Your task to perform on an android device: Open Google Chrome and click the shortcut for Amazon.com Image 0: 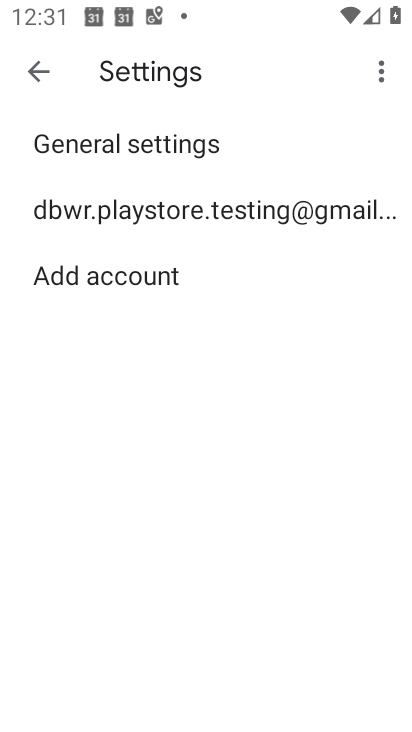
Step 0: press home button
Your task to perform on an android device: Open Google Chrome and click the shortcut for Amazon.com Image 1: 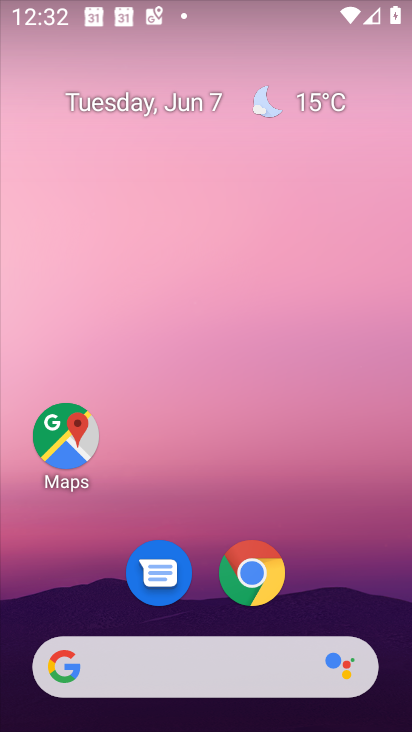
Step 1: click (317, 568)
Your task to perform on an android device: Open Google Chrome and click the shortcut for Amazon.com Image 2: 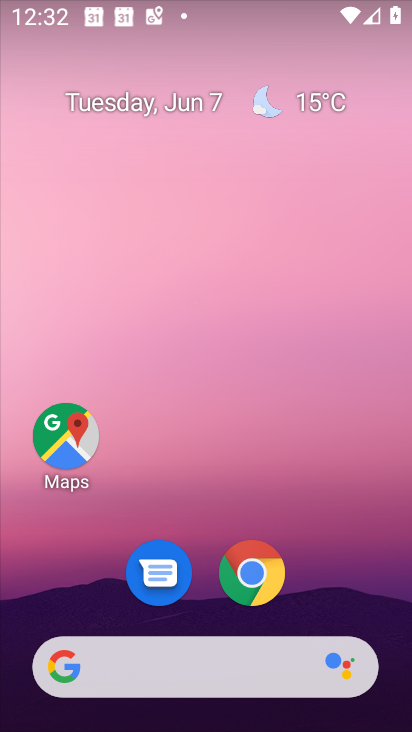
Step 2: click (265, 571)
Your task to perform on an android device: Open Google Chrome and click the shortcut for Amazon.com Image 3: 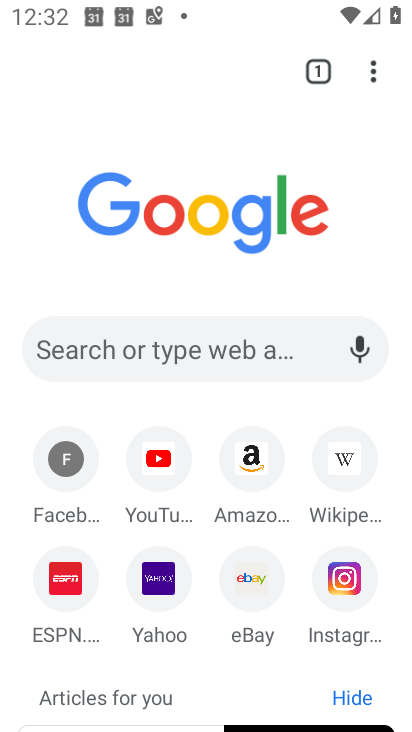
Step 3: click (247, 445)
Your task to perform on an android device: Open Google Chrome and click the shortcut for Amazon.com Image 4: 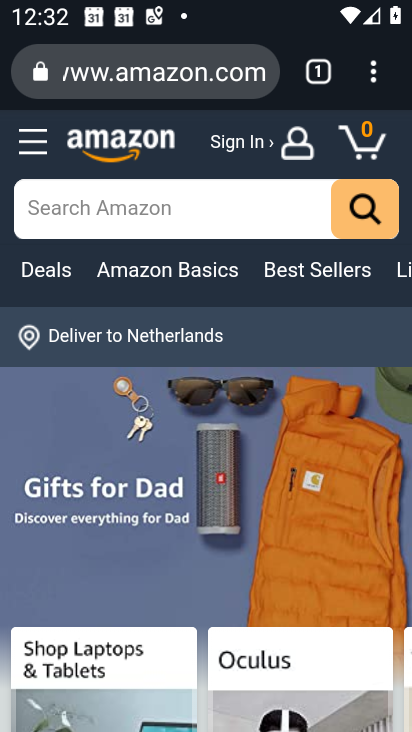
Step 4: task complete